Your task to perform on an android device: remove spam from my inbox in the gmail app Image 0: 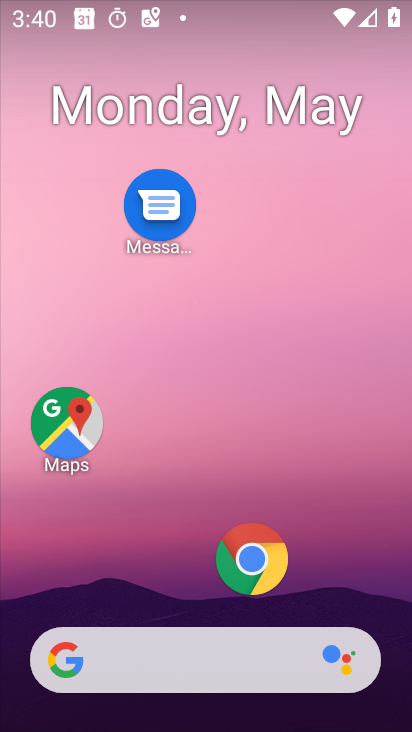
Step 0: drag from (195, 372) to (200, 225)
Your task to perform on an android device: remove spam from my inbox in the gmail app Image 1: 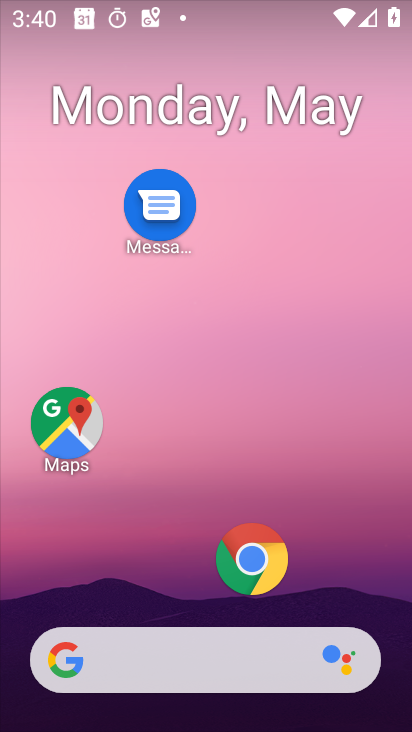
Step 1: click (167, 585)
Your task to perform on an android device: remove spam from my inbox in the gmail app Image 2: 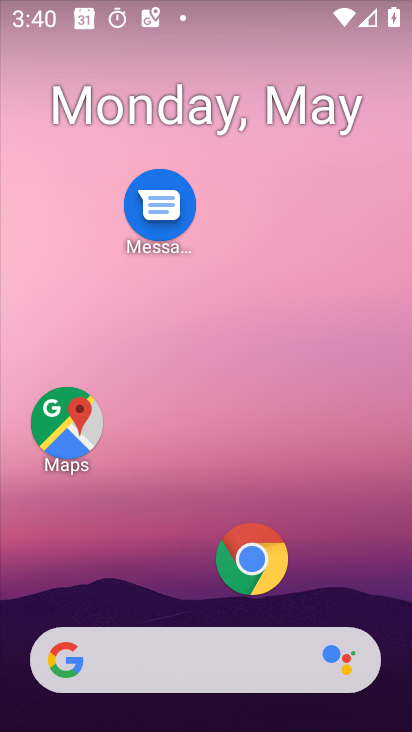
Step 2: drag from (158, 576) to (233, 163)
Your task to perform on an android device: remove spam from my inbox in the gmail app Image 3: 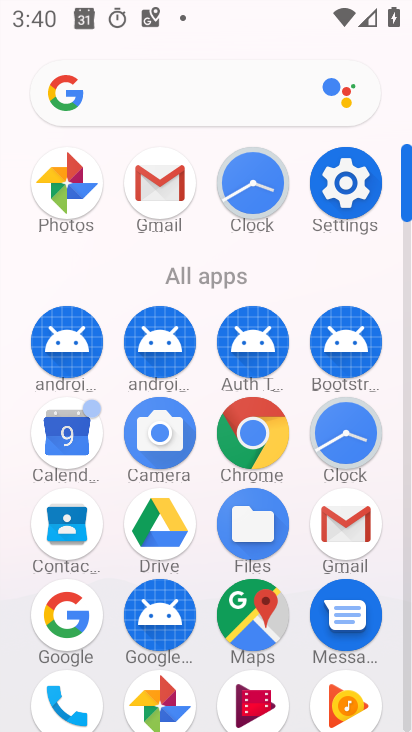
Step 3: click (162, 190)
Your task to perform on an android device: remove spam from my inbox in the gmail app Image 4: 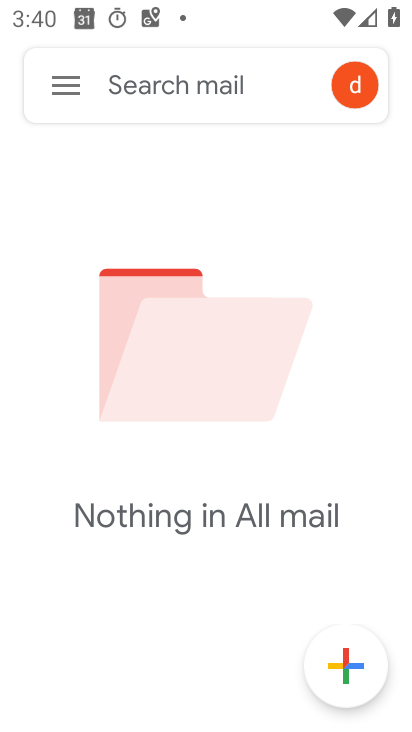
Step 4: click (56, 77)
Your task to perform on an android device: remove spam from my inbox in the gmail app Image 5: 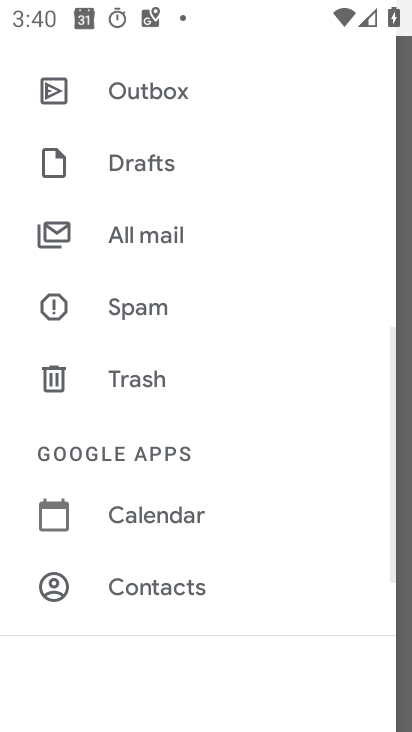
Step 5: click (116, 312)
Your task to perform on an android device: remove spam from my inbox in the gmail app Image 6: 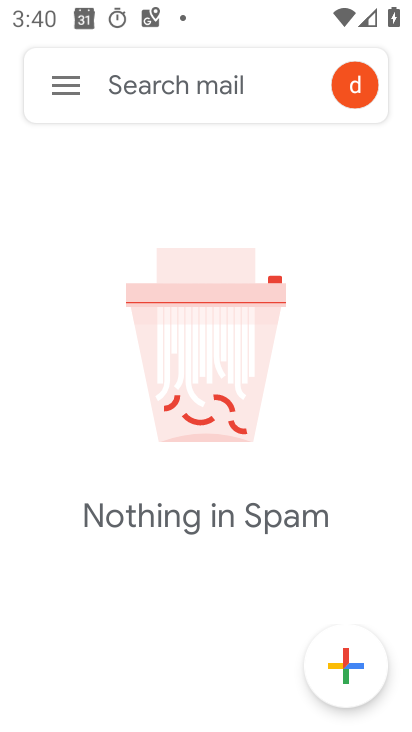
Step 6: task complete